Your task to perform on an android device: turn off notifications in google photos Image 0: 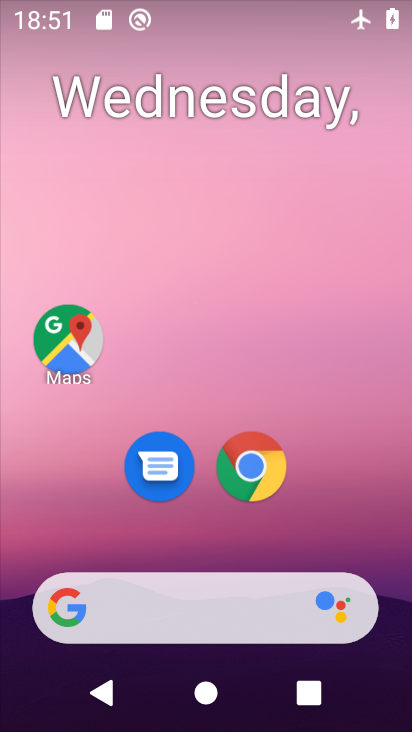
Step 0: drag from (341, 531) to (262, 134)
Your task to perform on an android device: turn off notifications in google photos Image 1: 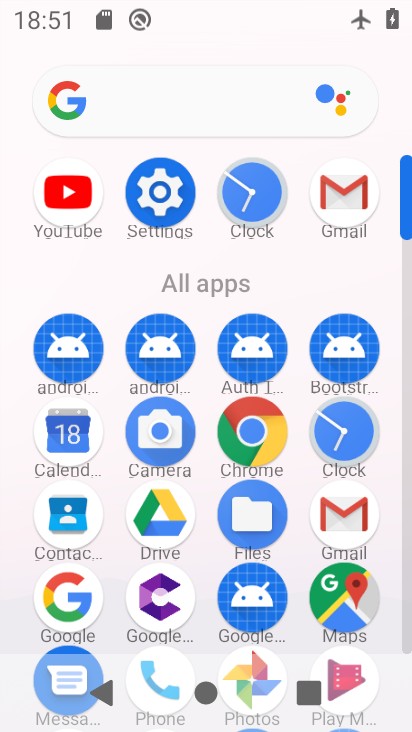
Step 1: drag from (199, 596) to (184, 391)
Your task to perform on an android device: turn off notifications in google photos Image 2: 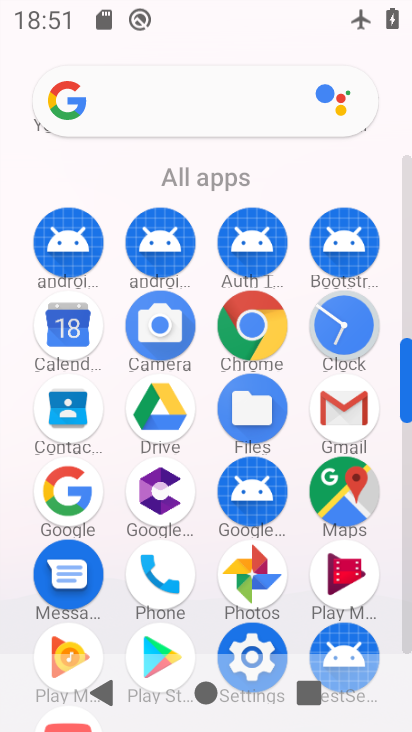
Step 2: click (251, 575)
Your task to perform on an android device: turn off notifications in google photos Image 3: 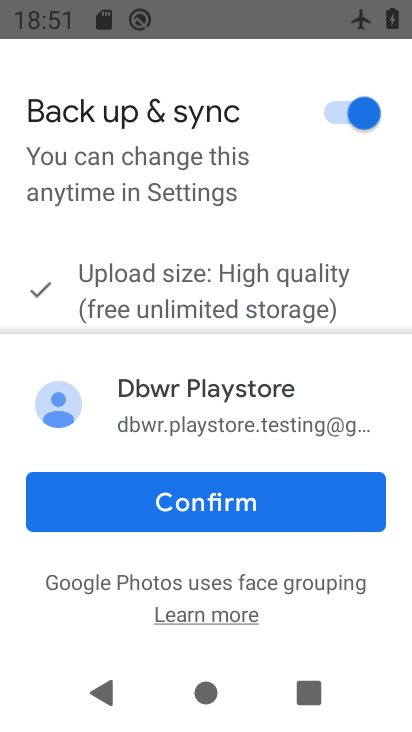
Step 3: click (190, 509)
Your task to perform on an android device: turn off notifications in google photos Image 4: 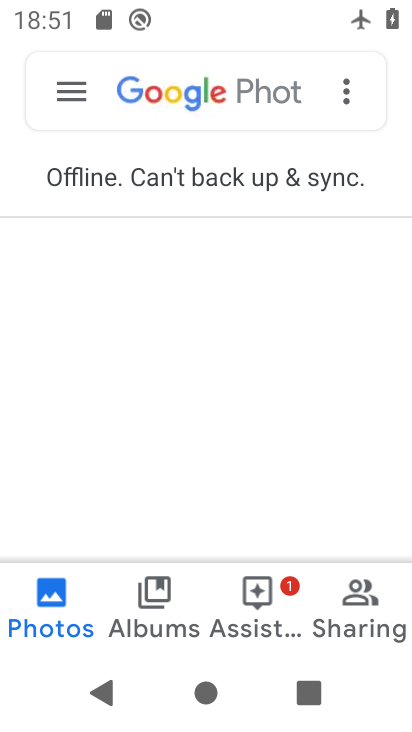
Step 4: click (55, 83)
Your task to perform on an android device: turn off notifications in google photos Image 5: 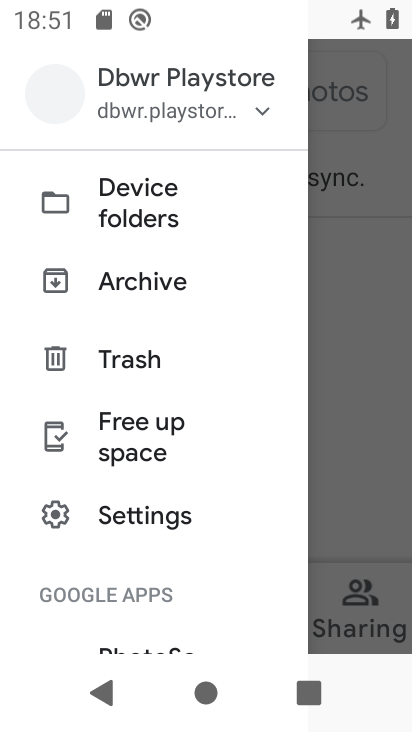
Step 5: click (131, 518)
Your task to perform on an android device: turn off notifications in google photos Image 6: 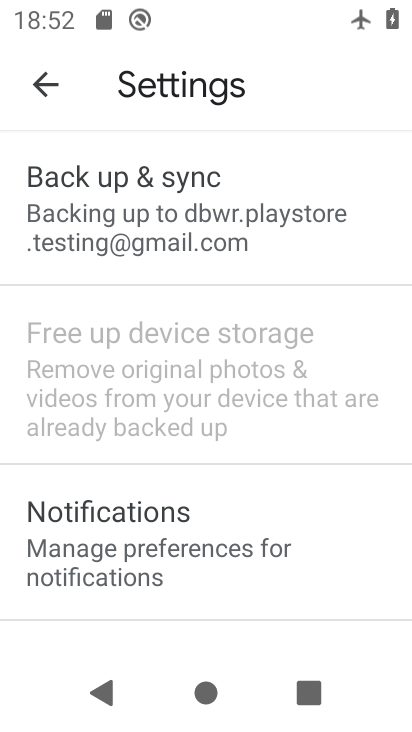
Step 6: click (148, 505)
Your task to perform on an android device: turn off notifications in google photos Image 7: 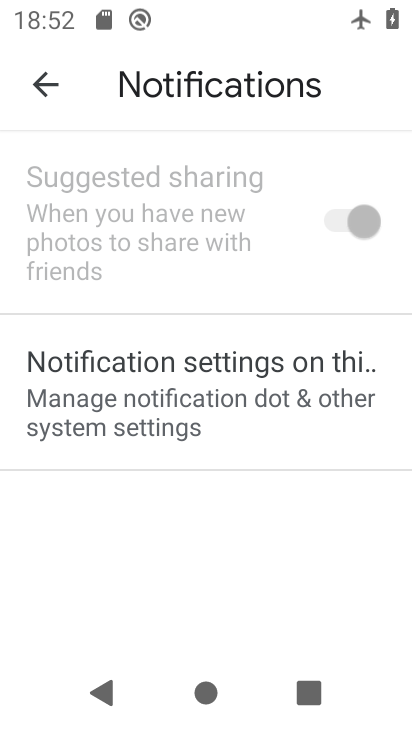
Step 7: click (161, 348)
Your task to perform on an android device: turn off notifications in google photos Image 8: 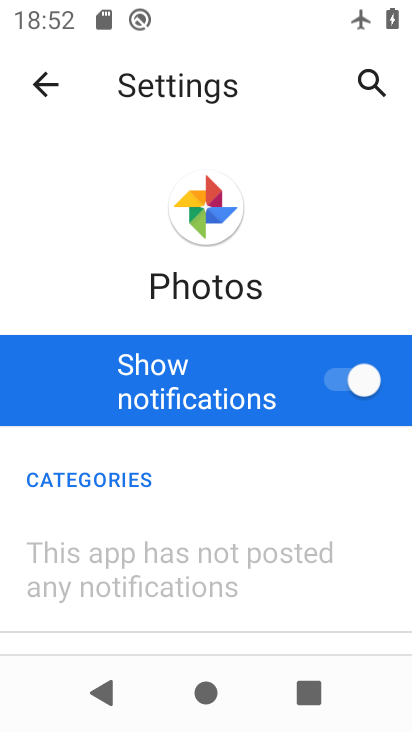
Step 8: click (360, 375)
Your task to perform on an android device: turn off notifications in google photos Image 9: 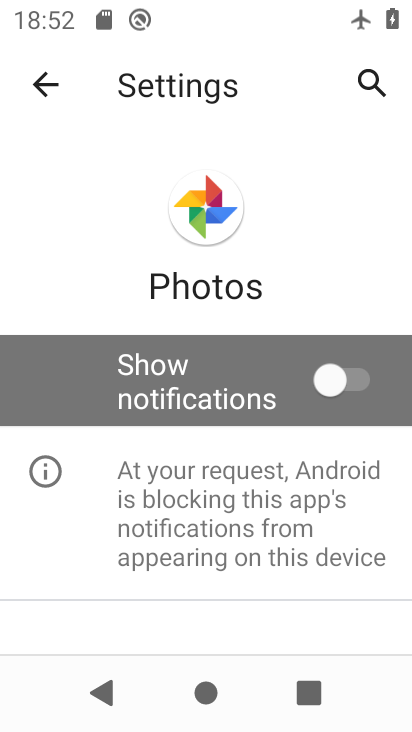
Step 9: task complete